Your task to perform on an android device: allow notifications from all sites in the chrome app Image 0: 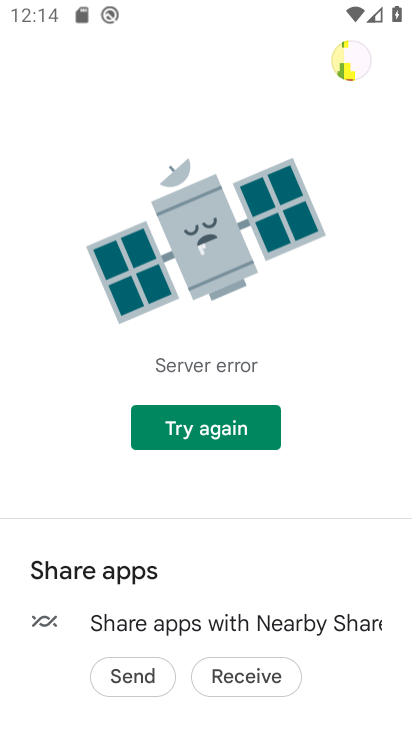
Step 0: press home button
Your task to perform on an android device: allow notifications from all sites in the chrome app Image 1: 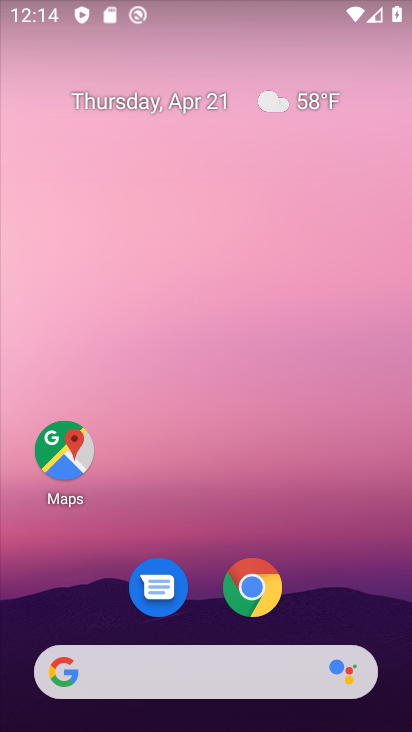
Step 1: click (258, 578)
Your task to perform on an android device: allow notifications from all sites in the chrome app Image 2: 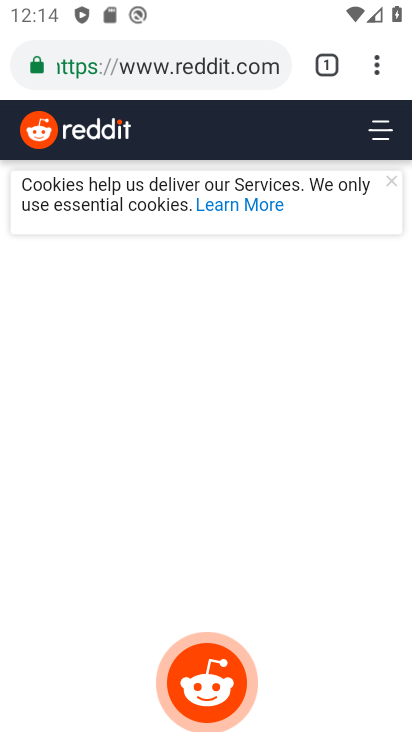
Step 2: click (380, 68)
Your task to perform on an android device: allow notifications from all sites in the chrome app Image 3: 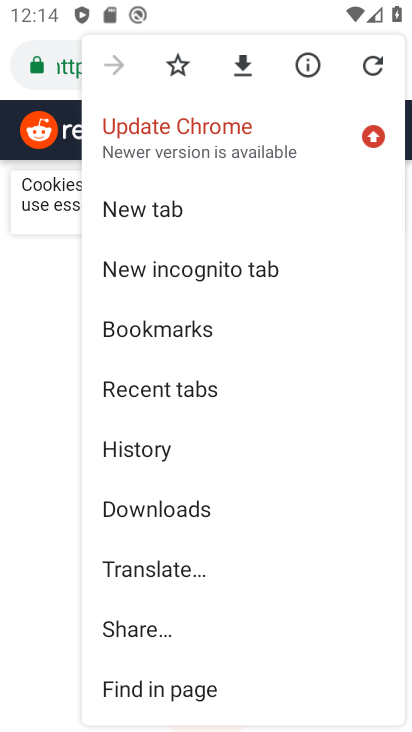
Step 3: drag from (164, 573) to (250, 198)
Your task to perform on an android device: allow notifications from all sites in the chrome app Image 4: 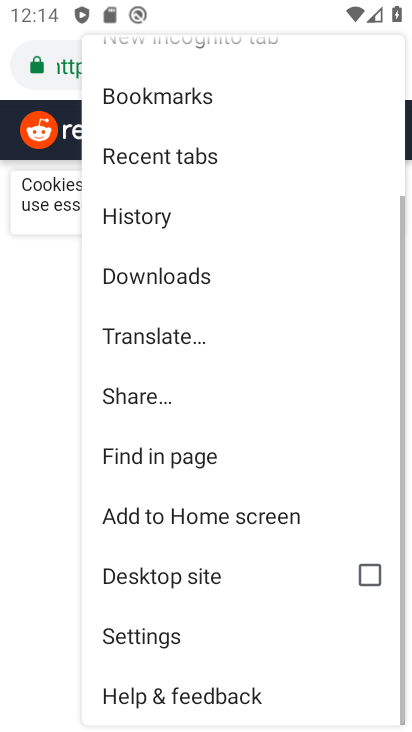
Step 4: click (139, 640)
Your task to perform on an android device: allow notifications from all sites in the chrome app Image 5: 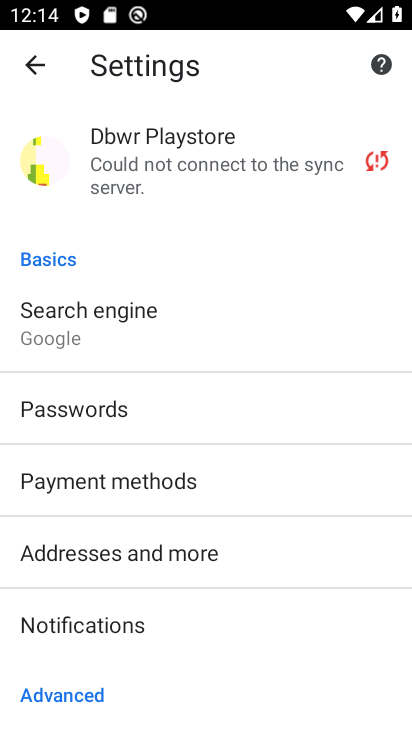
Step 5: click (72, 630)
Your task to perform on an android device: allow notifications from all sites in the chrome app Image 6: 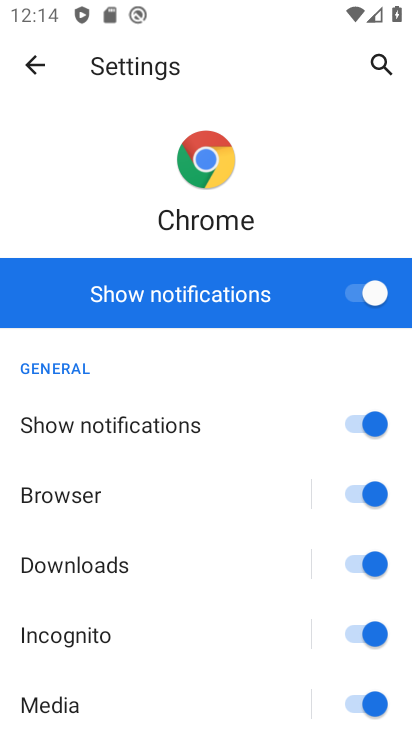
Step 6: task complete